Your task to perform on an android device: uninstall "Fetch Rewards" Image 0: 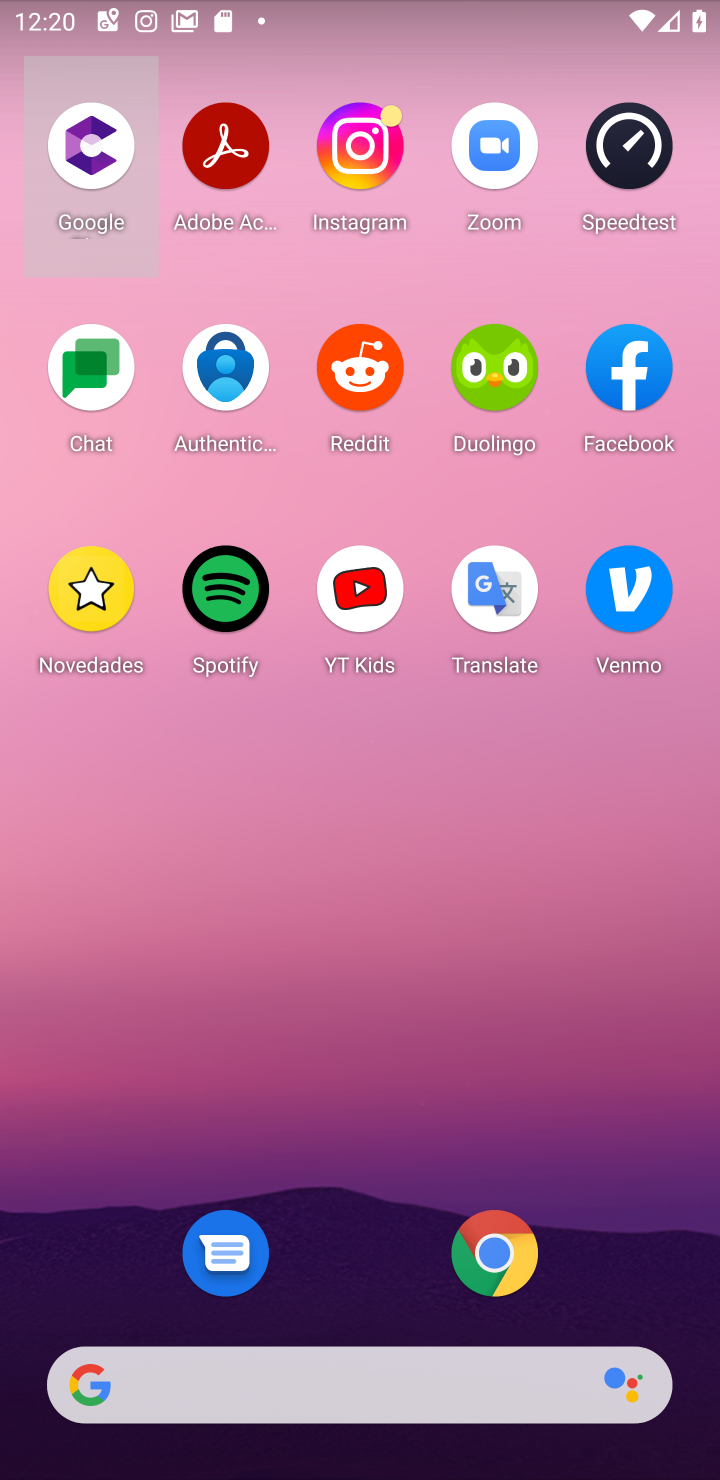
Step 0: drag from (660, 1139) to (467, 150)
Your task to perform on an android device: uninstall "Fetch Rewards" Image 1: 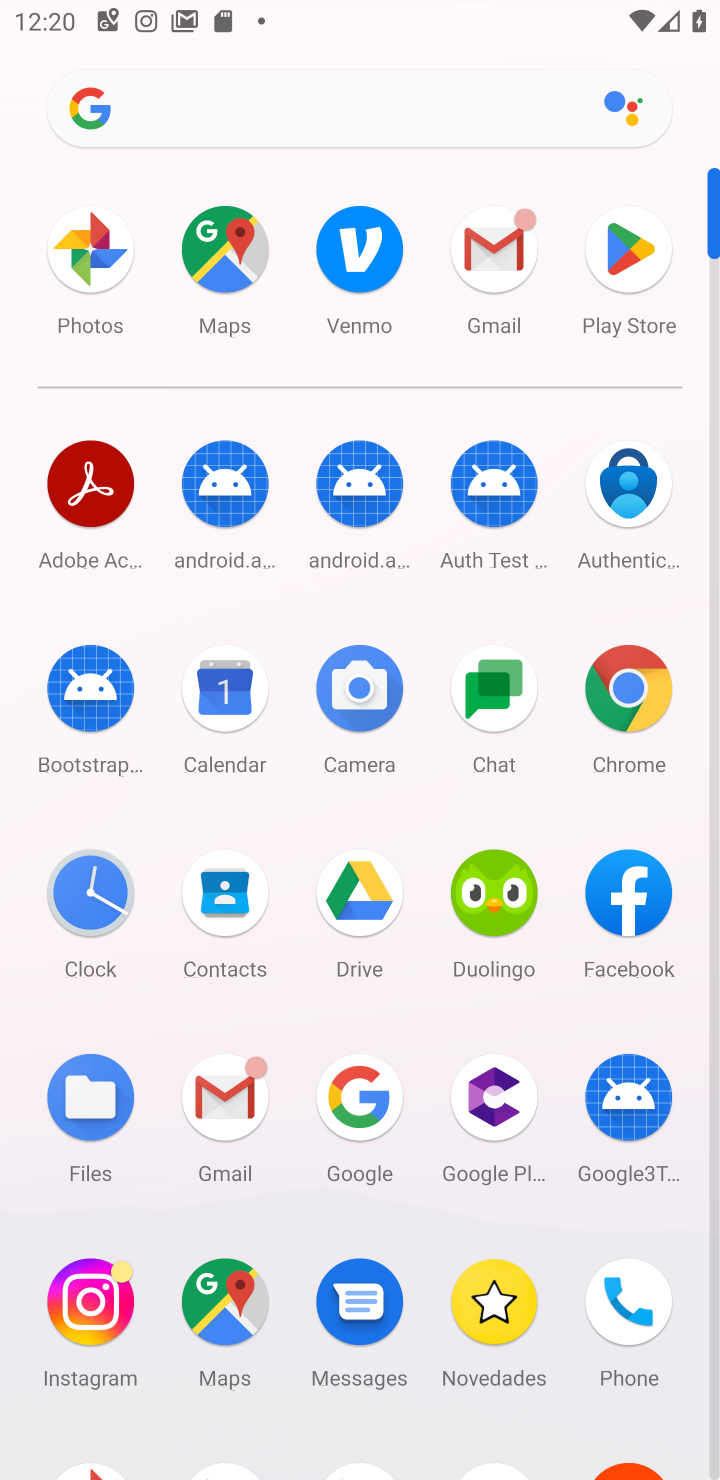
Step 1: click (648, 254)
Your task to perform on an android device: uninstall "Fetch Rewards" Image 2: 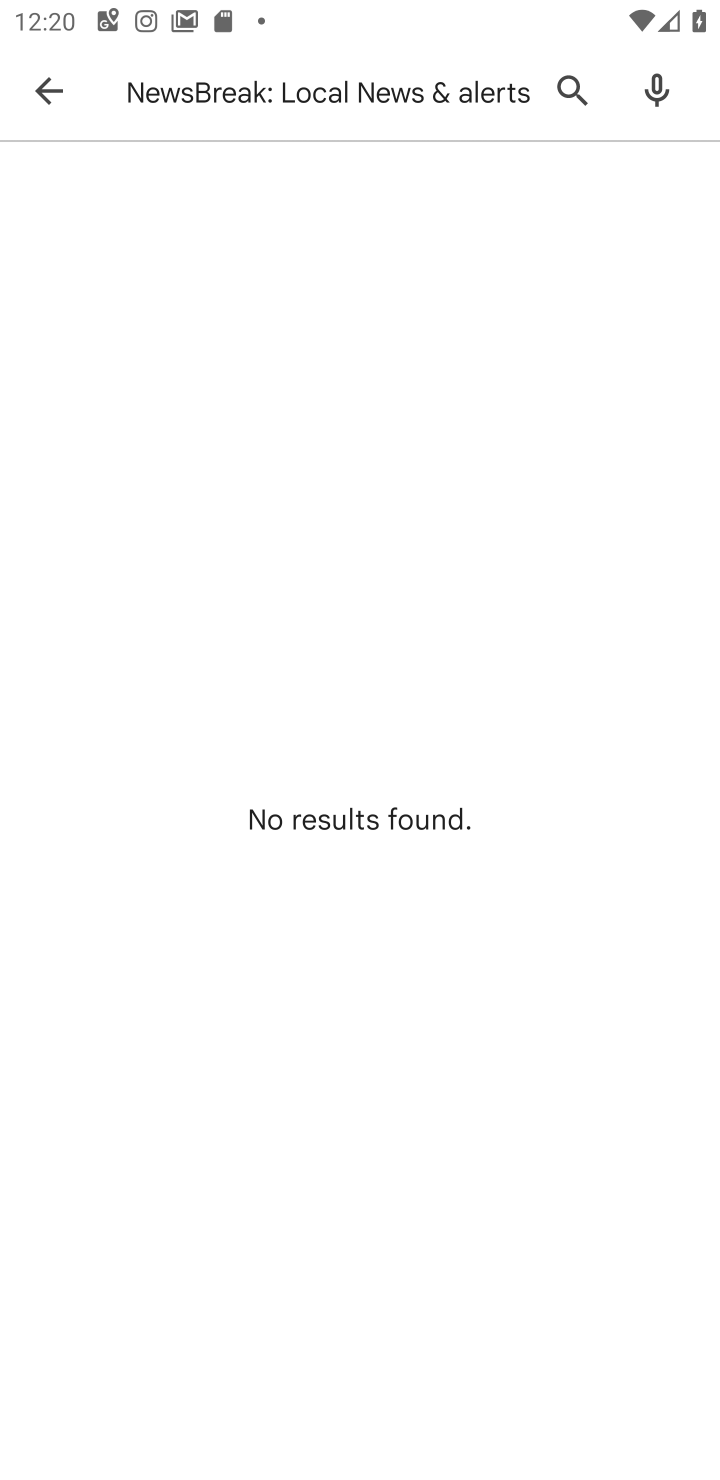
Step 2: click (436, 110)
Your task to perform on an android device: uninstall "Fetch Rewards" Image 3: 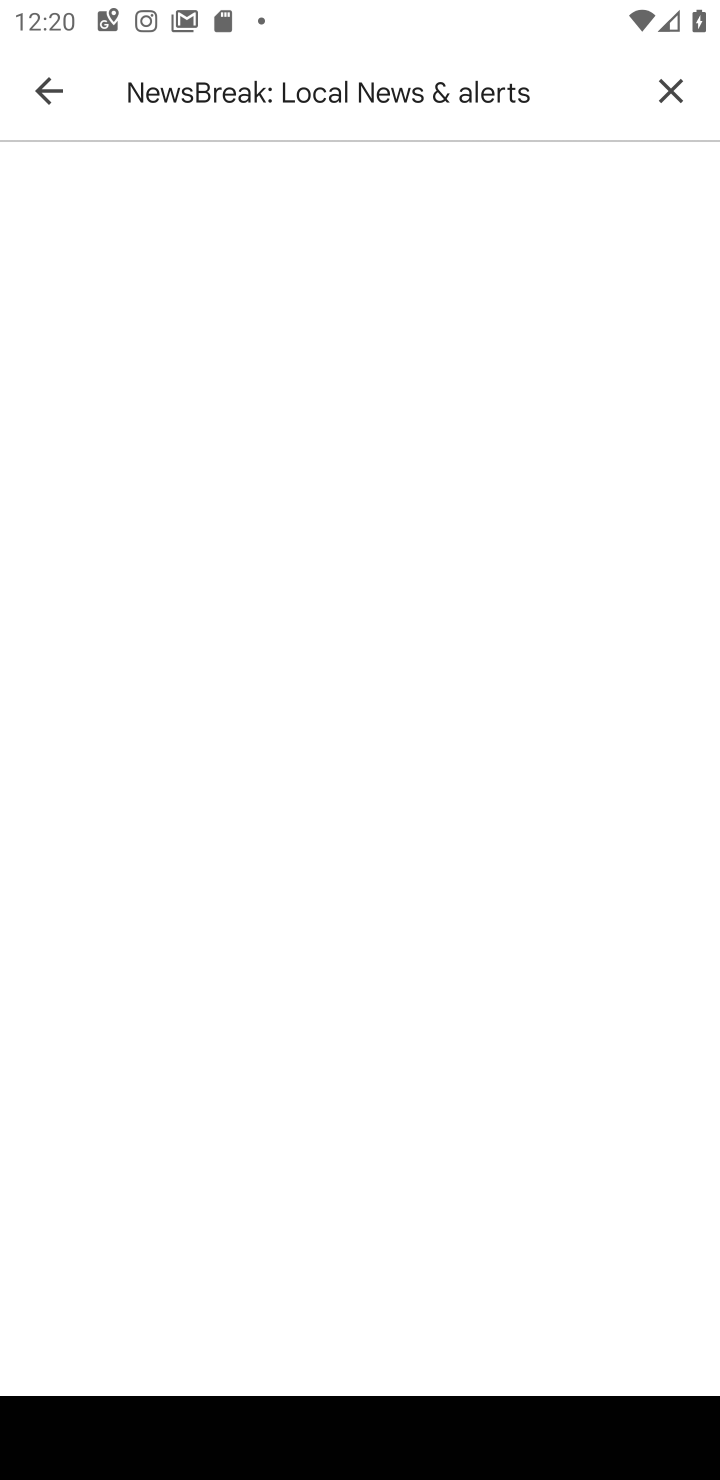
Step 3: click (666, 86)
Your task to perform on an android device: uninstall "Fetch Rewards" Image 4: 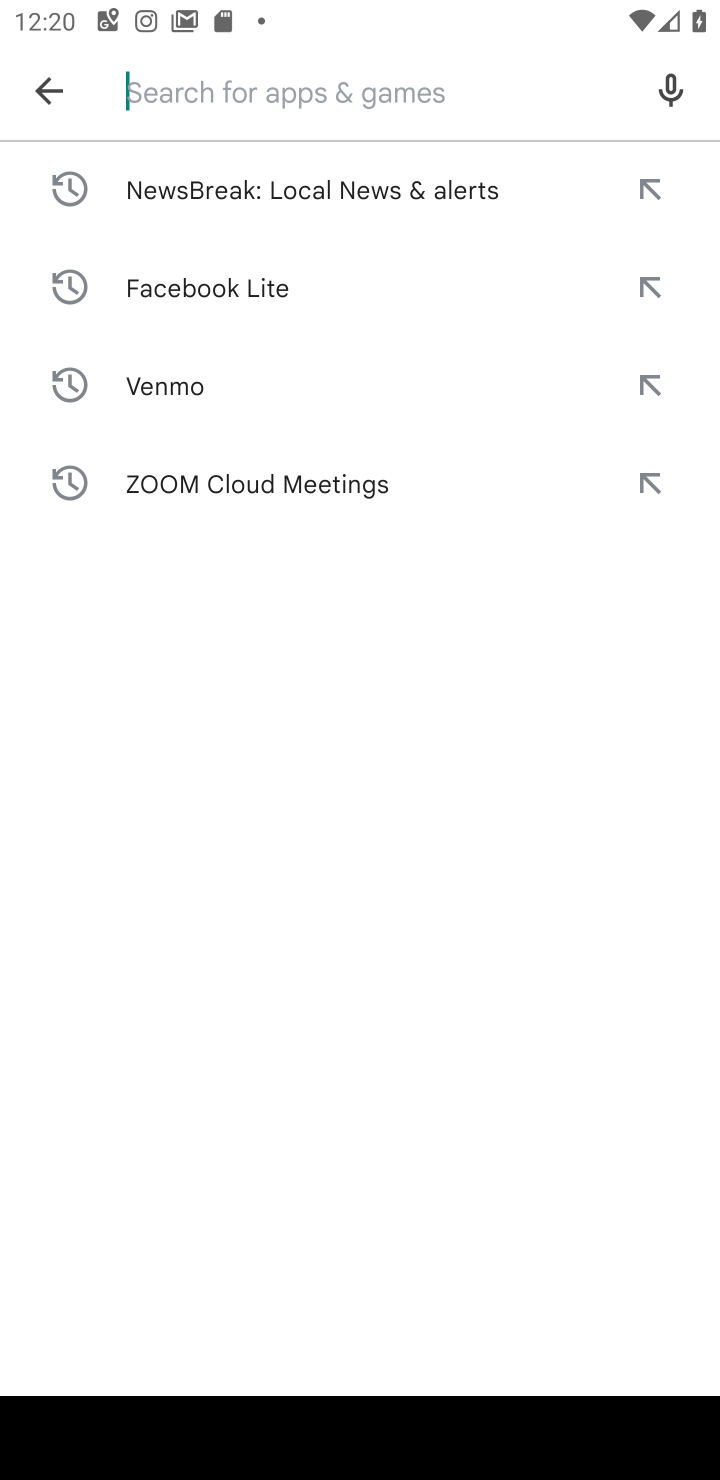
Step 4: type "Fetch Rewards"
Your task to perform on an android device: uninstall "Fetch Rewards" Image 5: 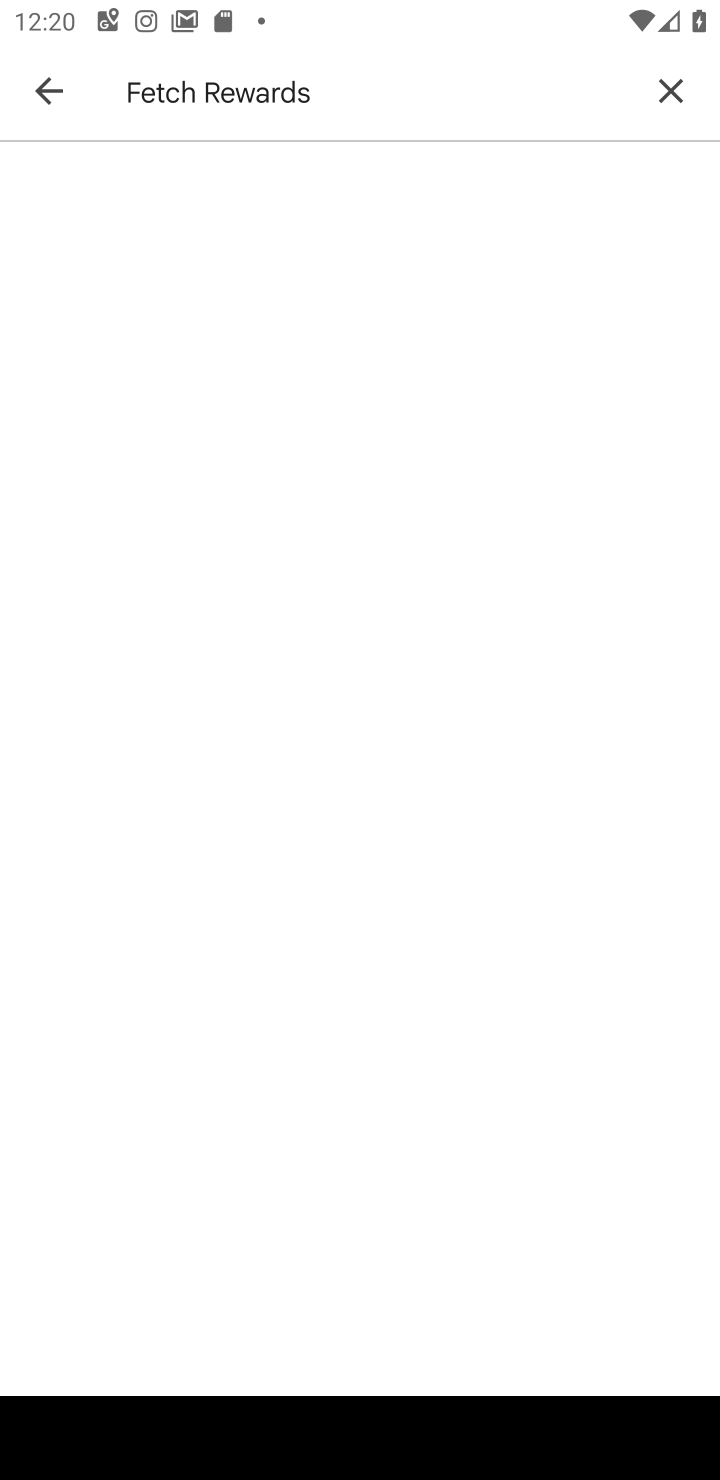
Step 5: press enter
Your task to perform on an android device: uninstall "Fetch Rewards" Image 6: 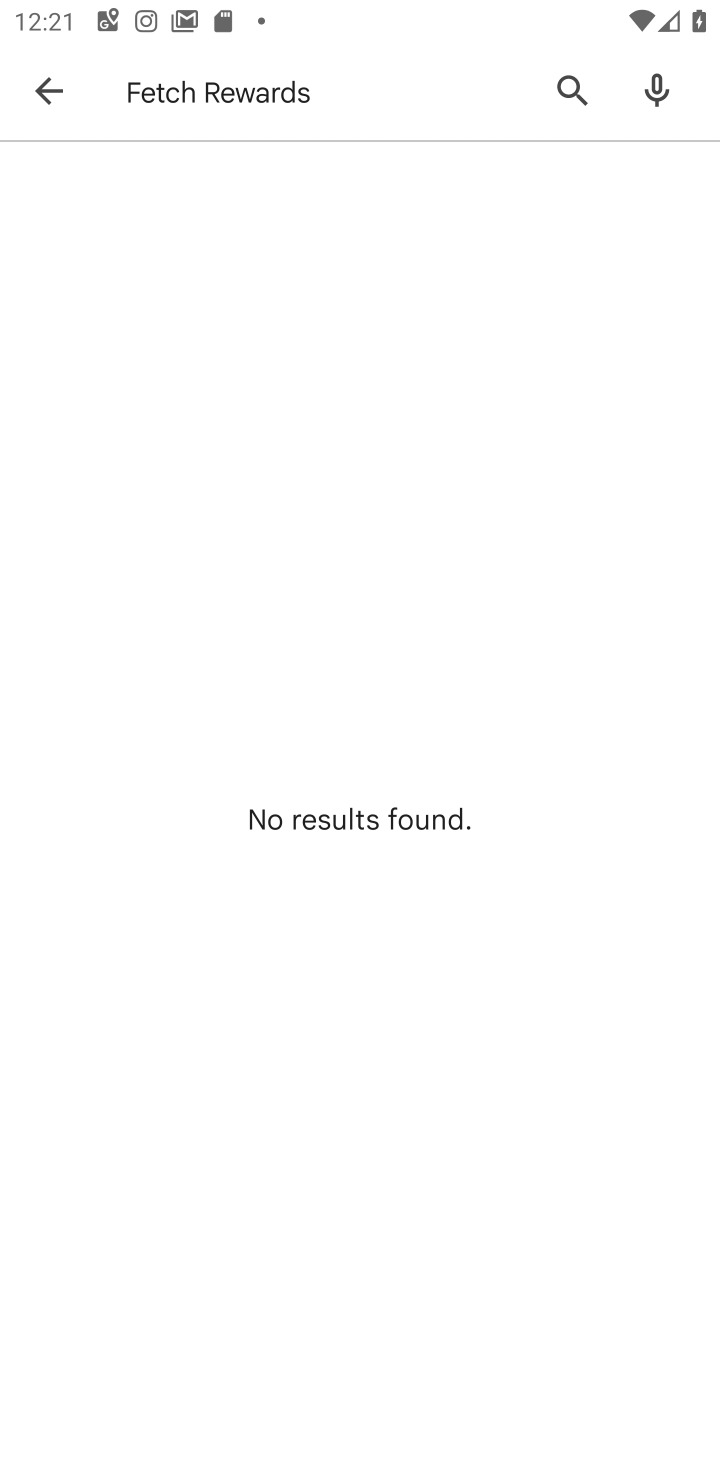
Step 6: press home button
Your task to perform on an android device: uninstall "Fetch Rewards" Image 7: 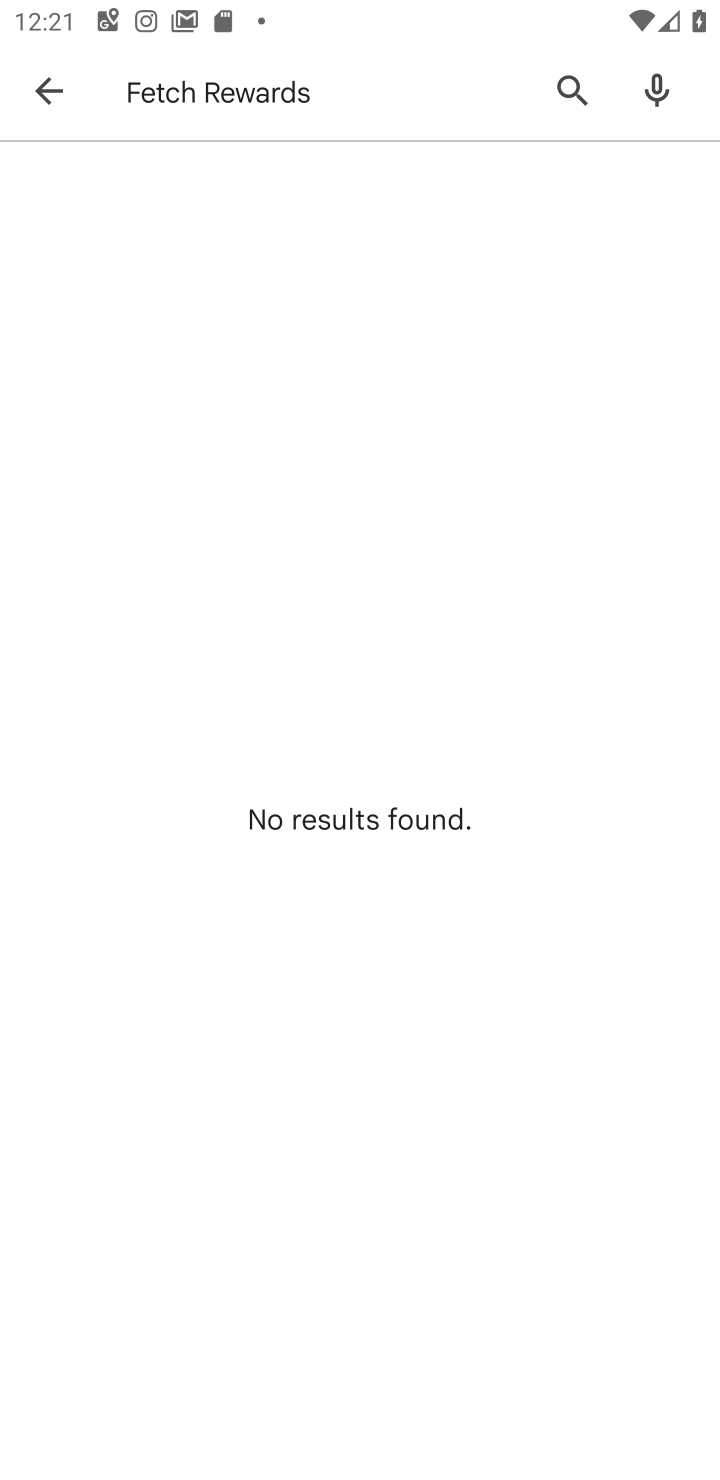
Step 7: press home button
Your task to perform on an android device: uninstall "Fetch Rewards" Image 8: 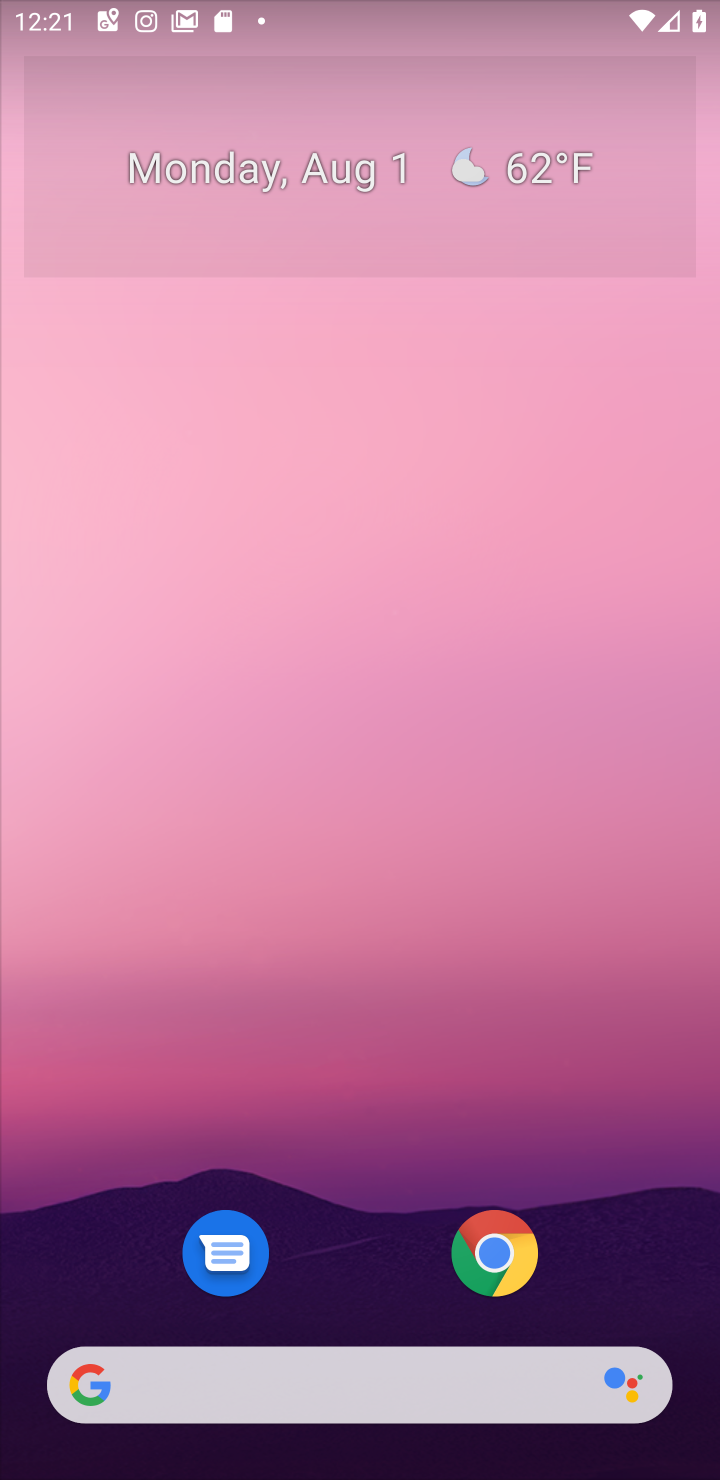
Step 8: drag from (412, 1278) to (464, 0)
Your task to perform on an android device: uninstall "Fetch Rewards" Image 9: 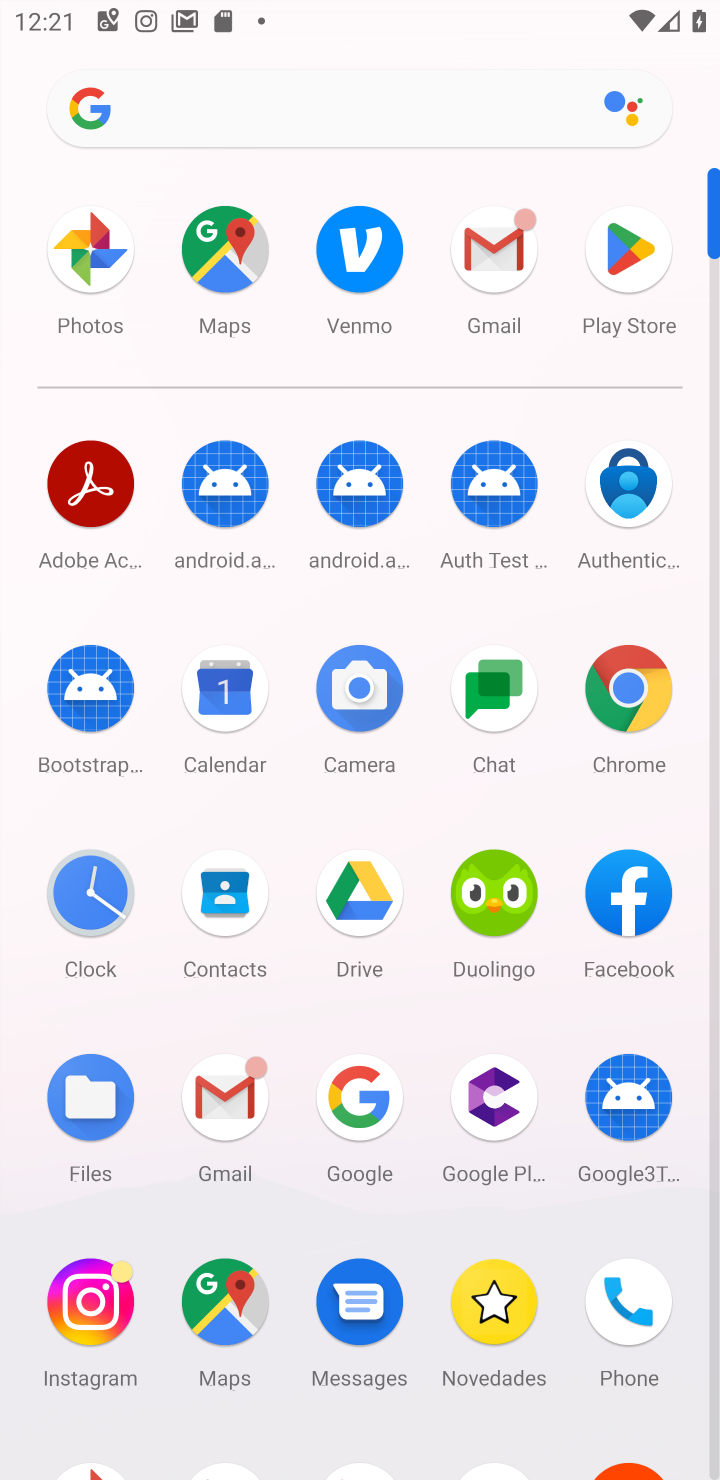
Step 9: click (620, 256)
Your task to perform on an android device: uninstall "Fetch Rewards" Image 10: 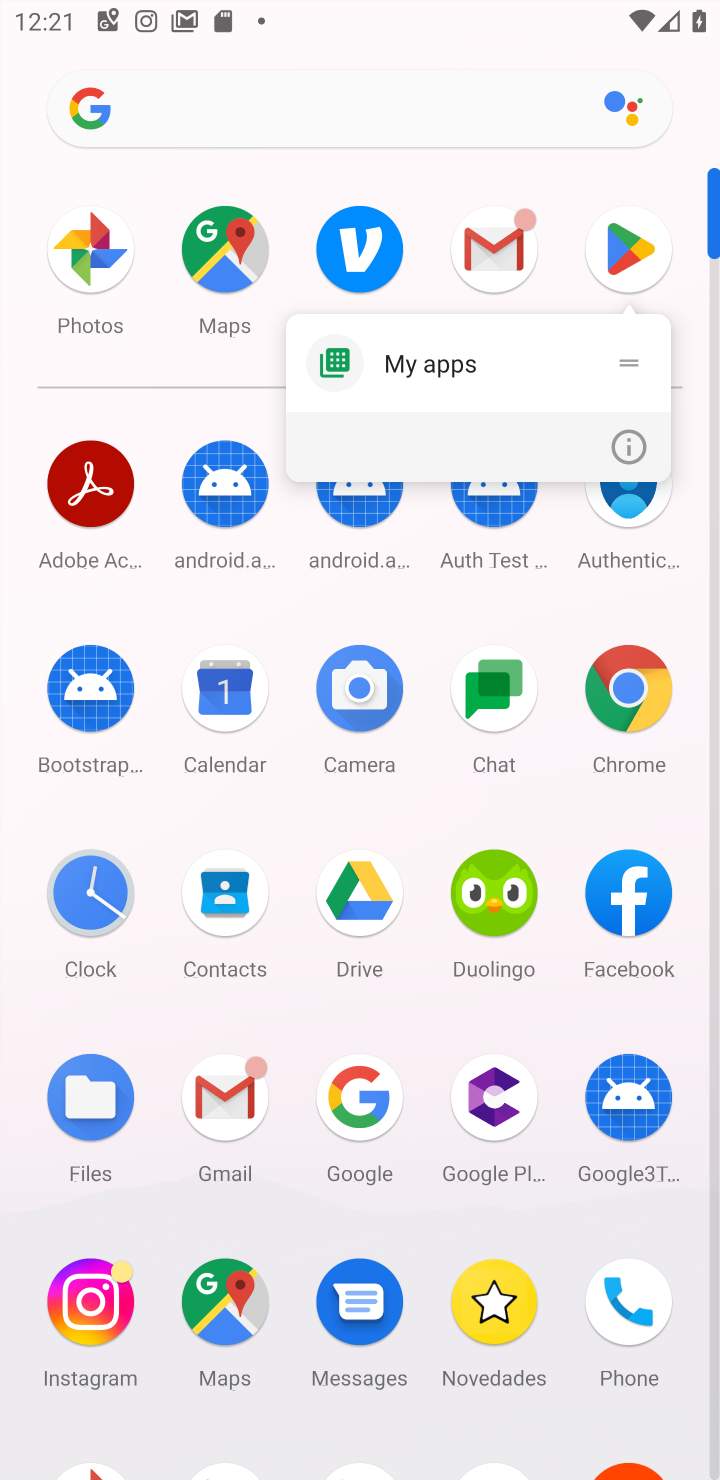
Step 10: click (631, 262)
Your task to perform on an android device: uninstall "Fetch Rewards" Image 11: 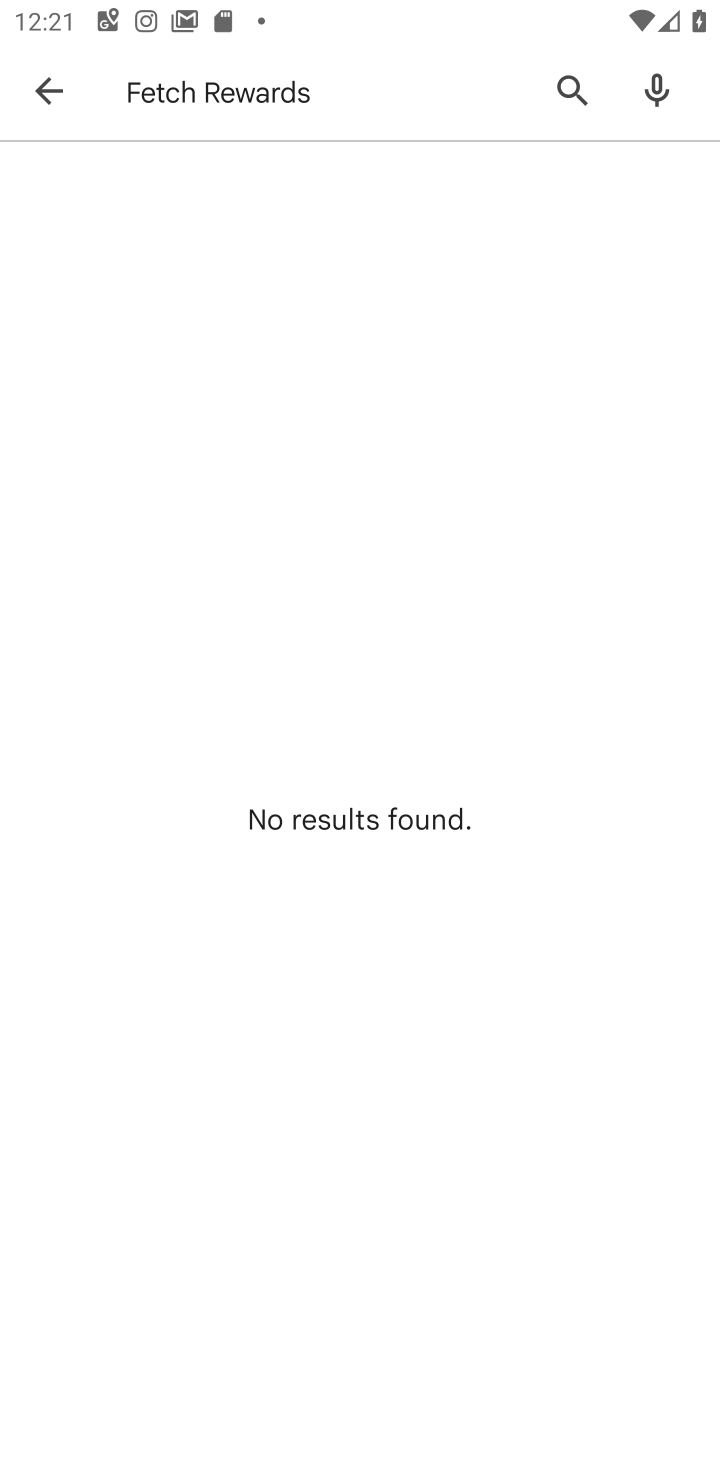
Step 11: click (469, 80)
Your task to perform on an android device: uninstall "Fetch Rewards" Image 12: 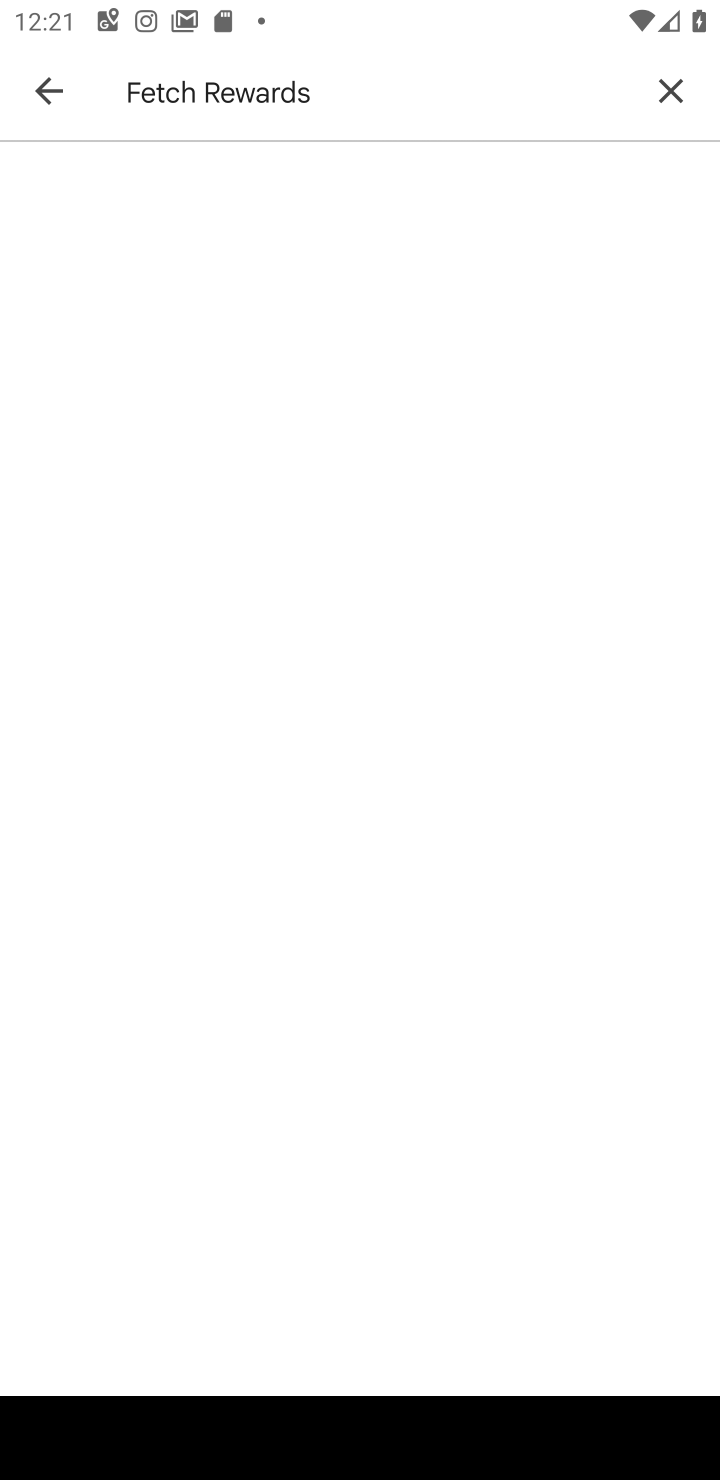
Step 12: click (661, 89)
Your task to perform on an android device: uninstall "Fetch Rewards" Image 13: 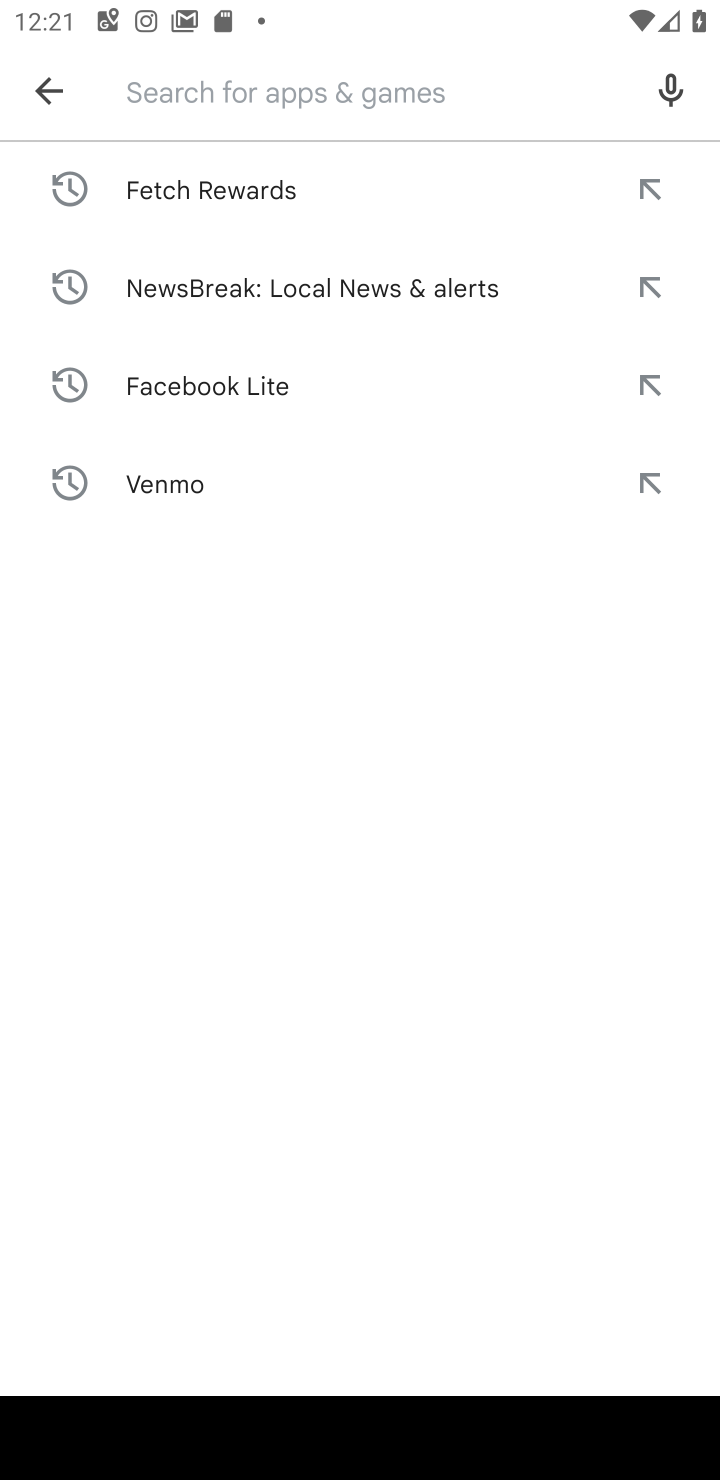
Step 13: type "Fetch Rewards"
Your task to perform on an android device: uninstall "Fetch Rewards" Image 14: 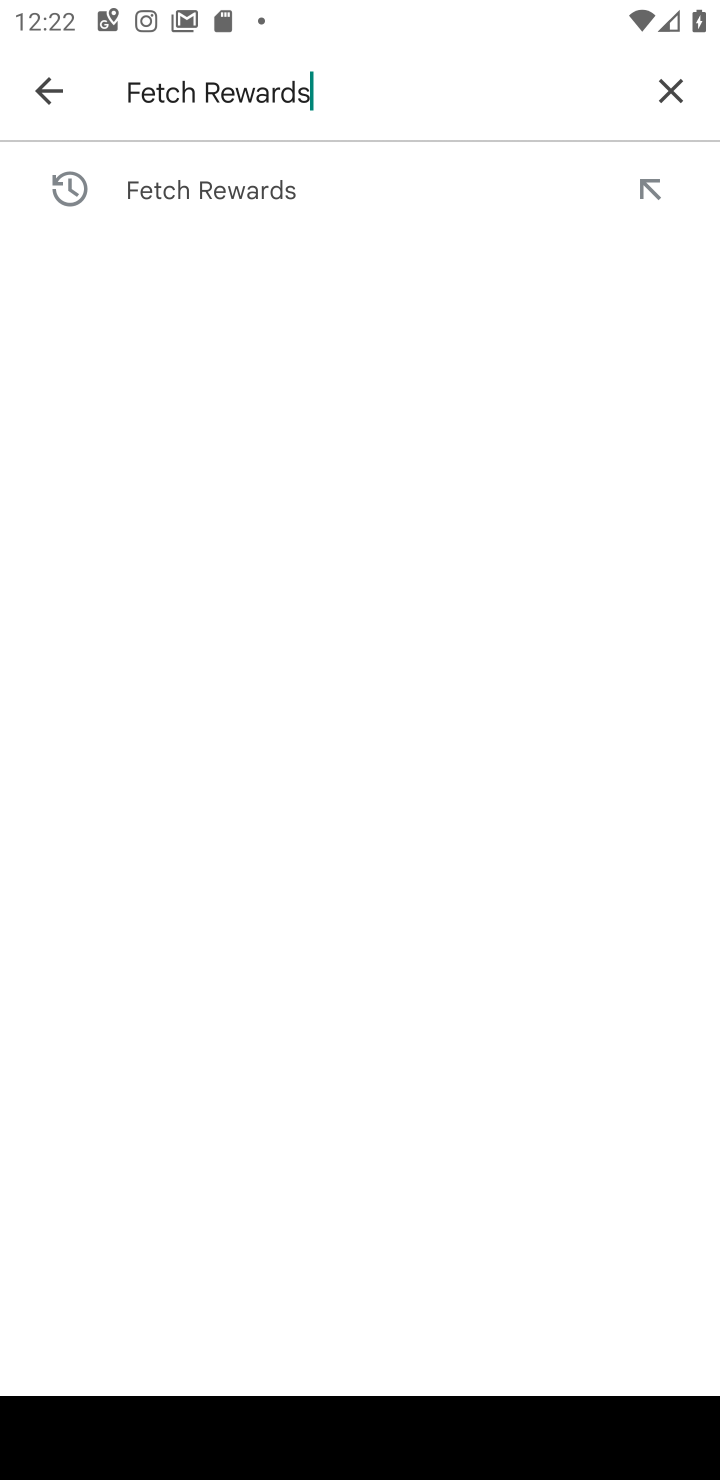
Step 14: press enter
Your task to perform on an android device: uninstall "Fetch Rewards" Image 15: 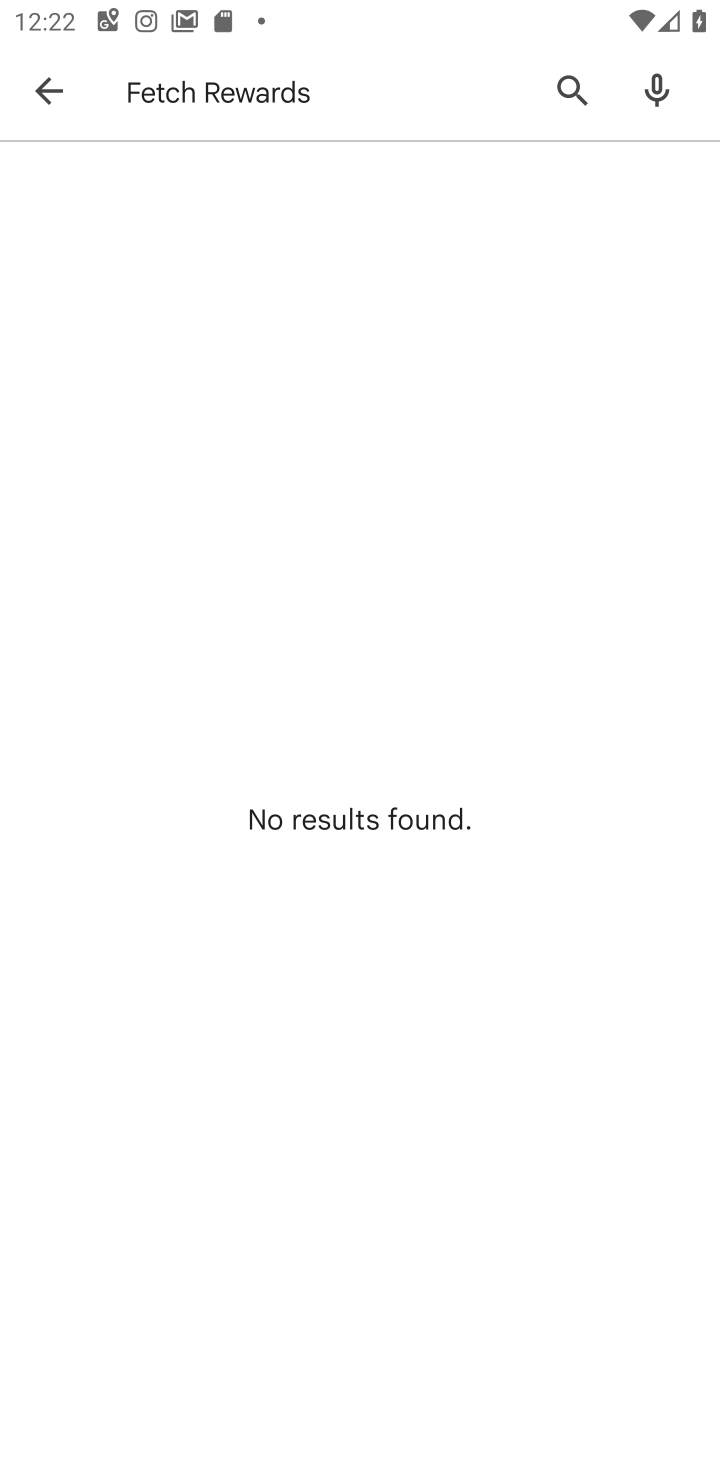
Step 15: task complete